Your task to perform on an android device: add a contact in the contacts app Image 0: 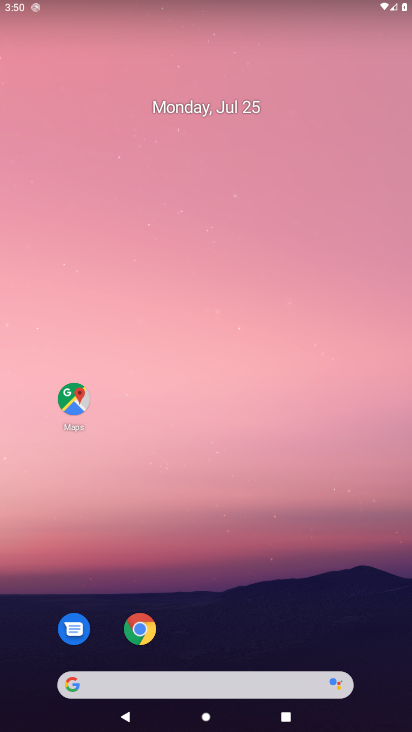
Step 0: drag from (77, 593) to (278, 247)
Your task to perform on an android device: add a contact in the contacts app Image 1: 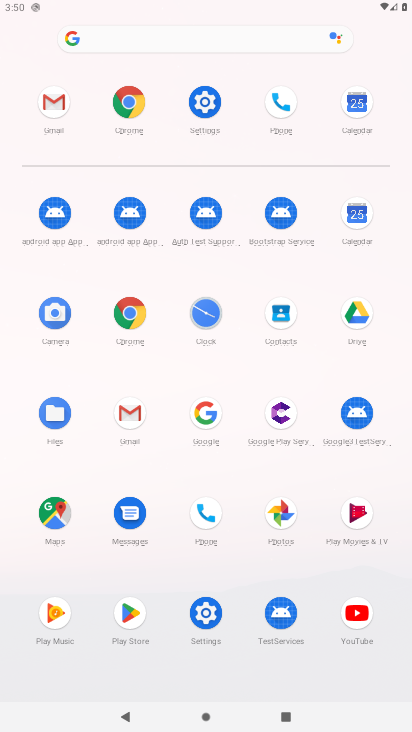
Step 1: click (184, 506)
Your task to perform on an android device: add a contact in the contacts app Image 2: 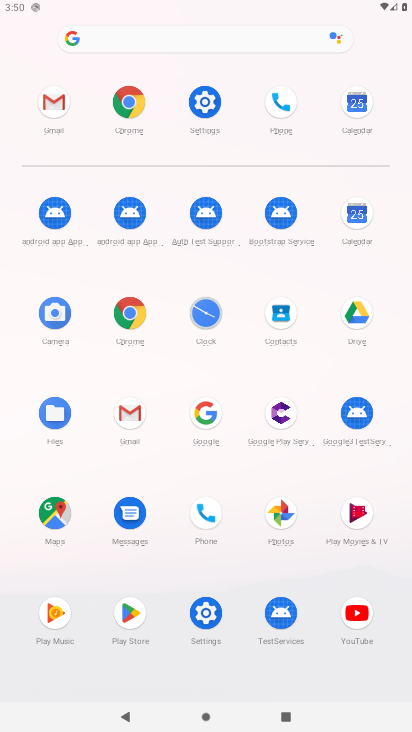
Step 2: click (189, 509)
Your task to perform on an android device: add a contact in the contacts app Image 3: 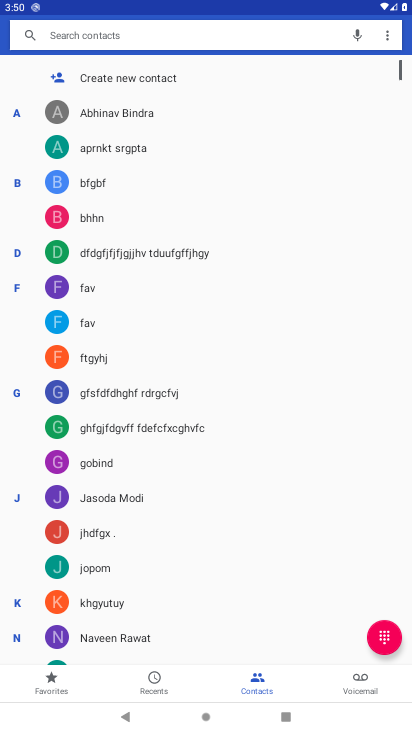
Step 3: click (94, 76)
Your task to perform on an android device: add a contact in the contacts app Image 4: 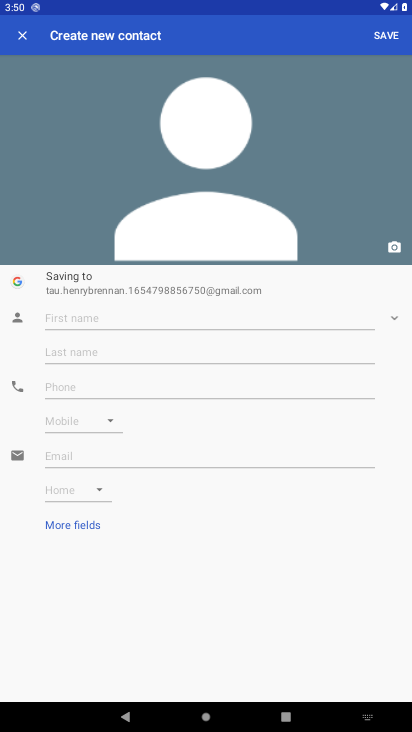
Step 4: click (79, 304)
Your task to perform on an android device: add a contact in the contacts app Image 5: 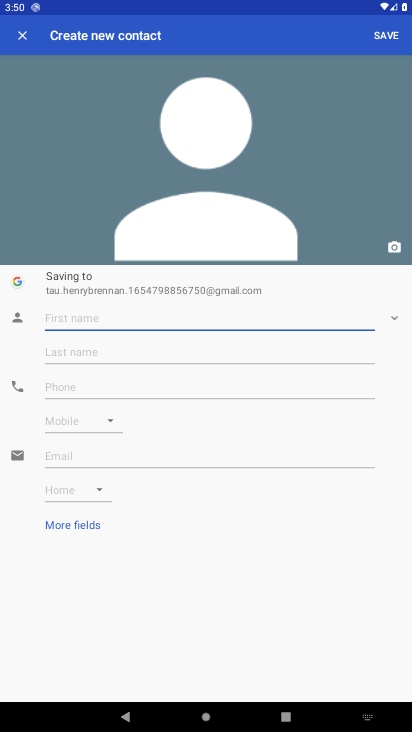
Step 5: type "ugdgkhj"
Your task to perform on an android device: add a contact in the contacts app Image 6: 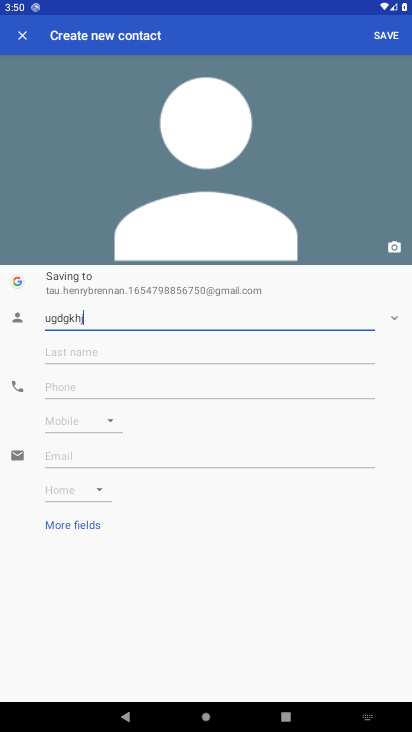
Step 6: type ""
Your task to perform on an android device: add a contact in the contacts app Image 7: 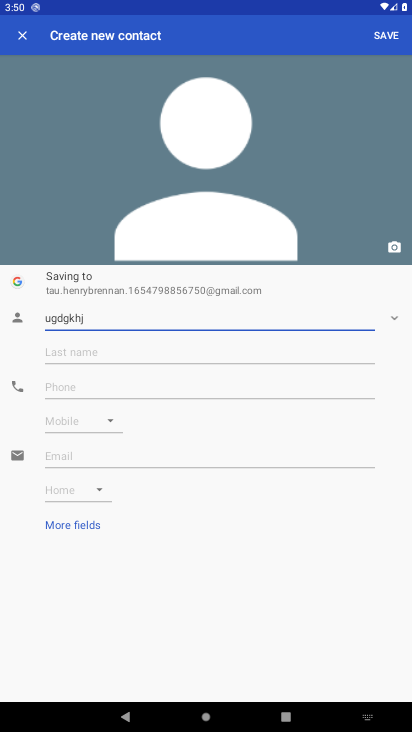
Step 7: click (375, 31)
Your task to perform on an android device: add a contact in the contacts app Image 8: 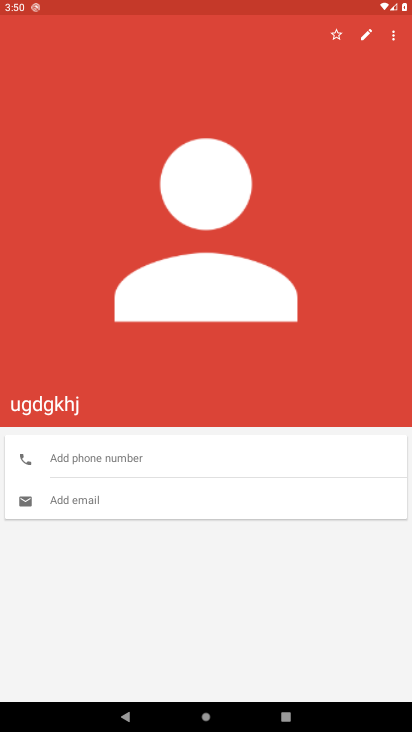
Step 8: task complete